Your task to perform on an android device: turn smart compose on in the gmail app Image 0: 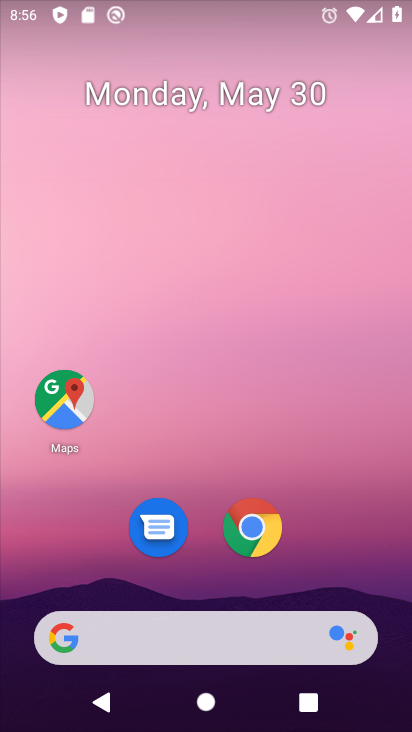
Step 0: drag from (221, 631) to (163, 75)
Your task to perform on an android device: turn smart compose on in the gmail app Image 1: 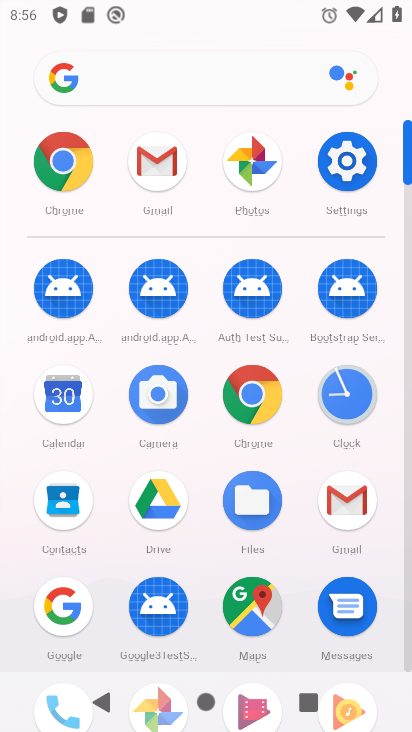
Step 1: click (338, 503)
Your task to perform on an android device: turn smart compose on in the gmail app Image 2: 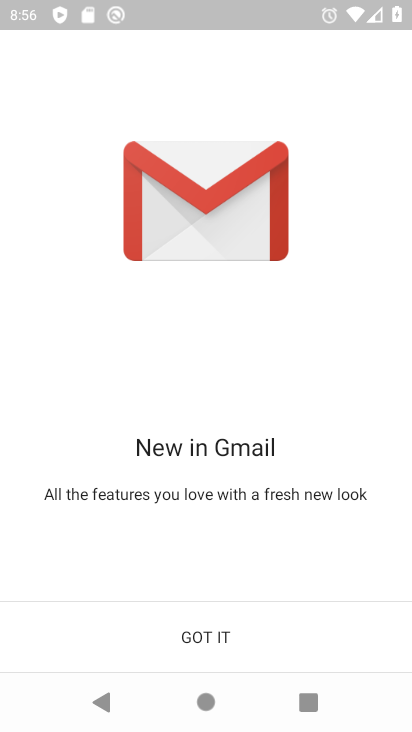
Step 2: click (192, 653)
Your task to perform on an android device: turn smart compose on in the gmail app Image 3: 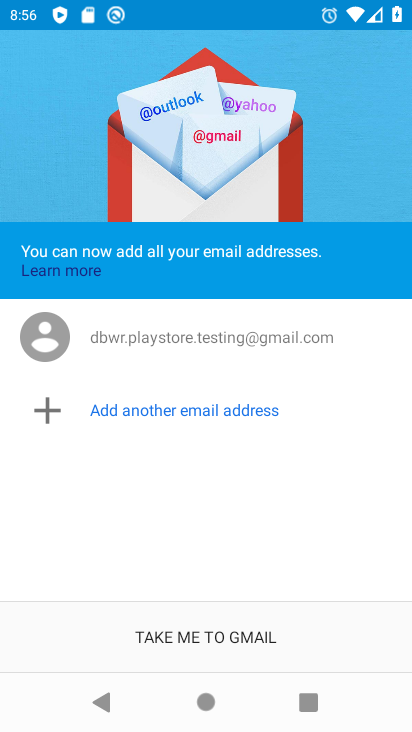
Step 3: click (191, 652)
Your task to perform on an android device: turn smart compose on in the gmail app Image 4: 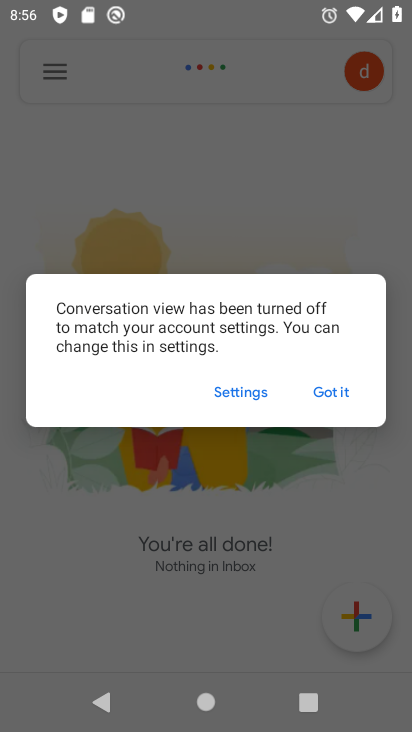
Step 4: click (333, 393)
Your task to perform on an android device: turn smart compose on in the gmail app Image 5: 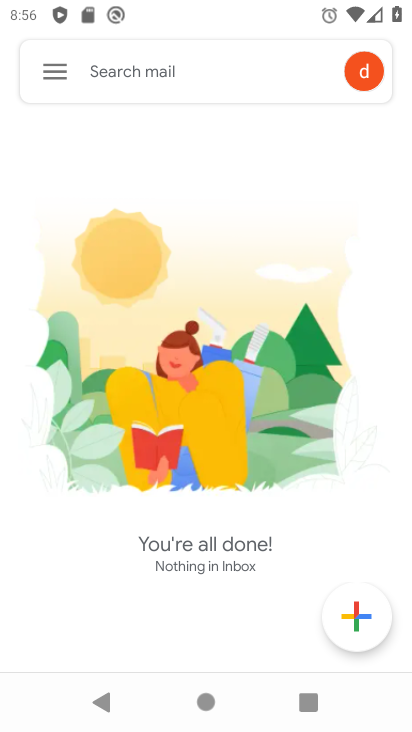
Step 5: click (63, 74)
Your task to perform on an android device: turn smart compose on in the gmail app Image 6: 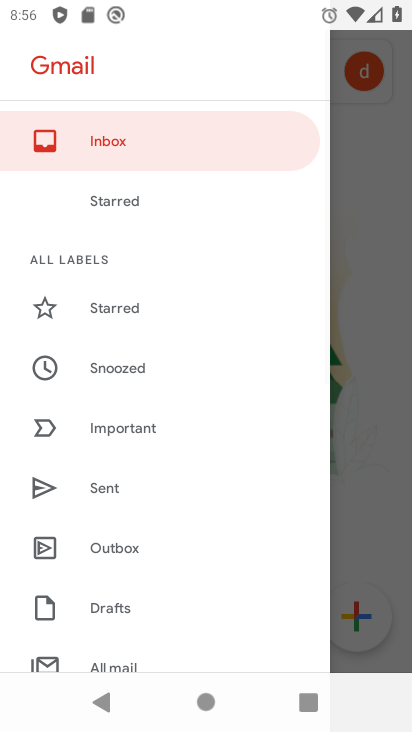
Step 6: drag from (187, 581) to (254, 148)
Your task to perform on an android device: turn smart compose on in the gmail app Image 7: 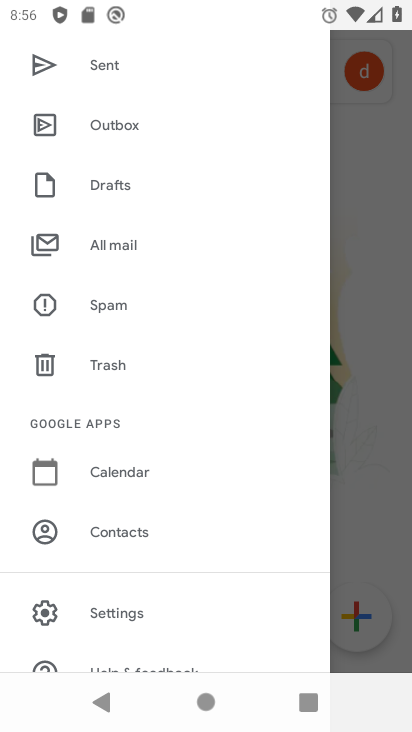
Step 7: click (136, 608)
Your task to perform on an android device: turn smart compose on in the gmail app Image 8: 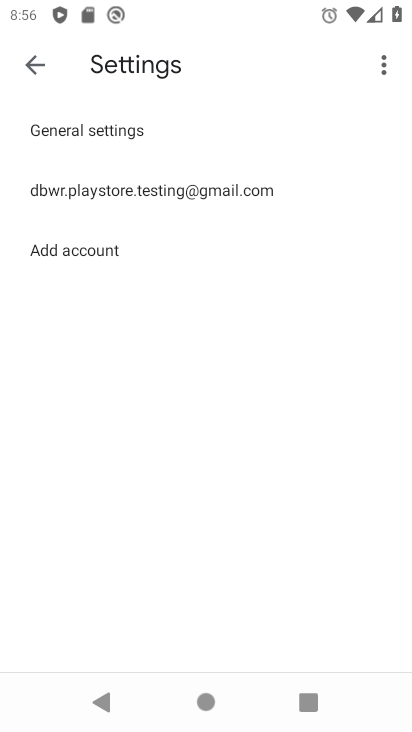
Step 8: click (153, 200)
Your task to perform on an android device: turn smart compose on in the gmail app Image 9: 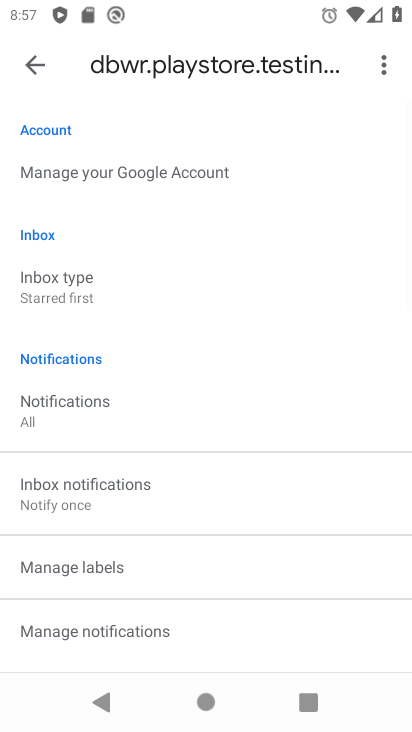
Step 9: task complete